Your task to perform on an android device: Open calendar and show me the third week of next month Image 0: 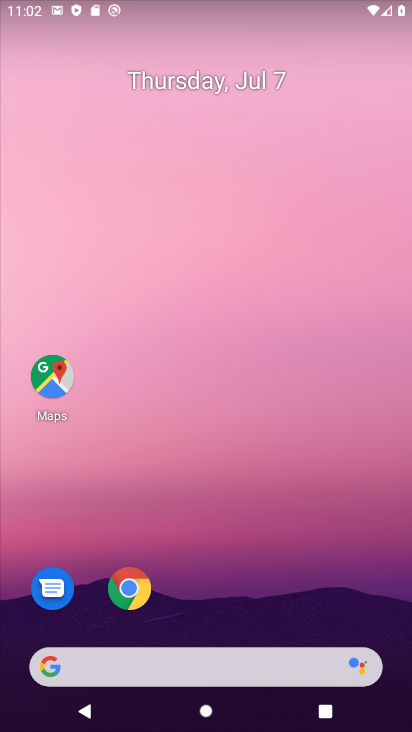
Step 0: drag from (225, 615) to (172, 57)
Your task to perform on an android device: Open calendar and show me the third week of next month Image 1: 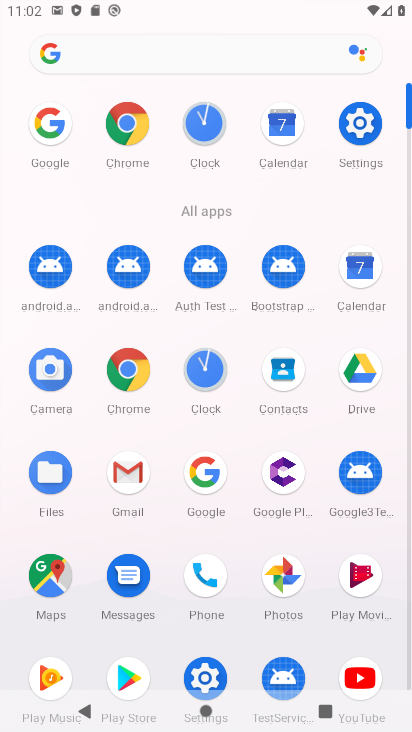
Step 1: click (277, 130)
Your task to perform on an android device: Open calendar and show me the third week of next month Image 2: 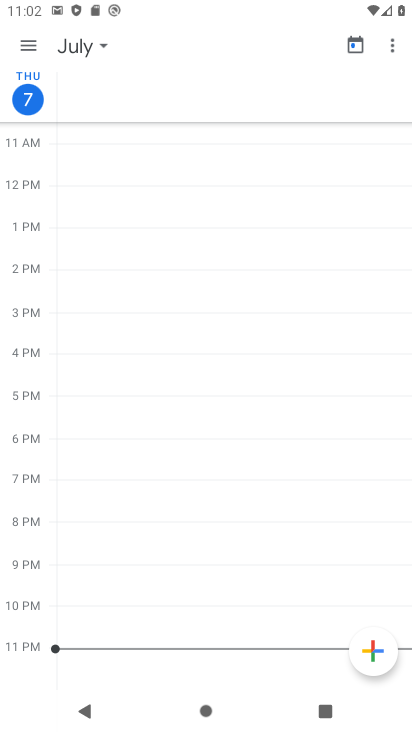
Step 2: press home button
Your task to perform on an android device: Open calendar and show me the third week of next month Image 3: 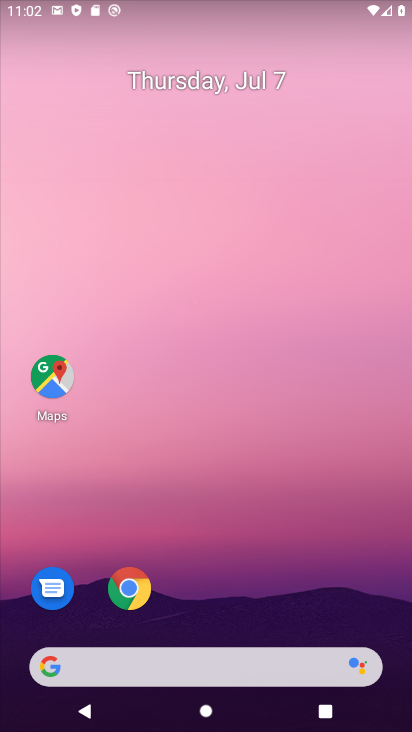
Step 3: drag from (201, 638) to (207, 22)
Your task to perform on an android device: Open calendar and show me the third week of next month Image 4: 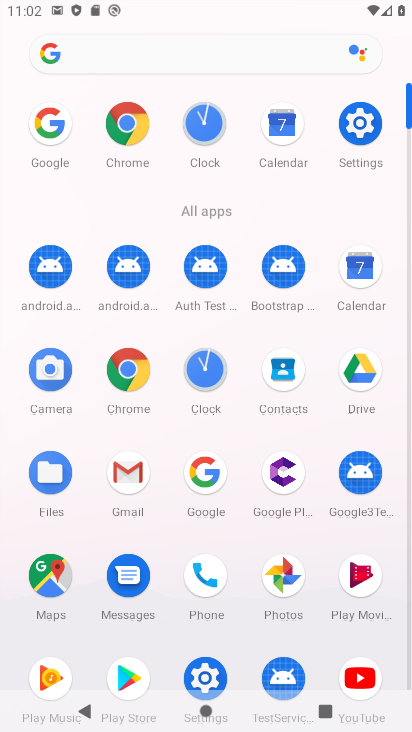
Step 4: click (379, 271)
Your task to perform on an android device: Open calendar and show me the third week of next month Image 5: 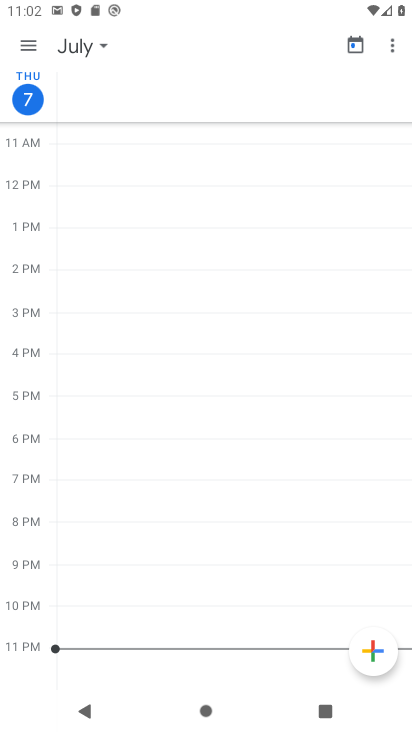
Step 5: click (28, 47)
Your task to perform on an android device: Open calendar and show me the third week of next month Image 6: 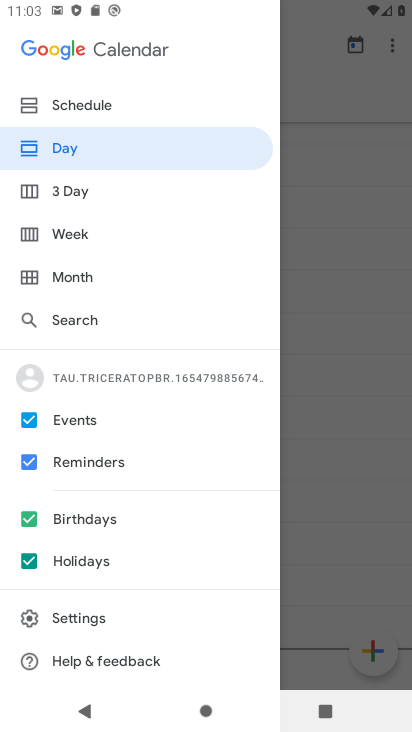
Step 6: click (61, 238)
Your task to perform on an android device: Open calendar and show me the third week of next month Image 7: 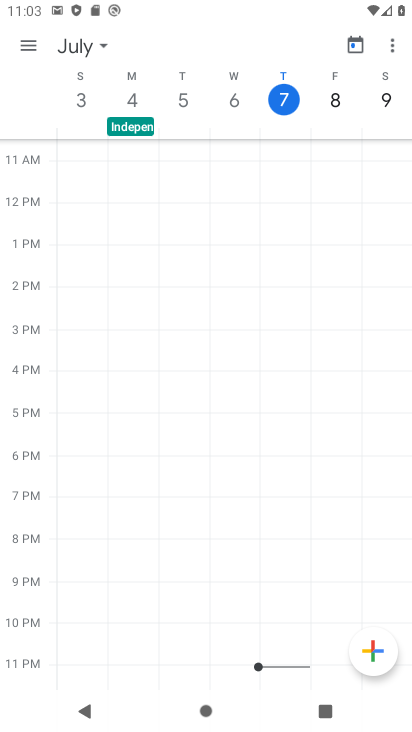
Step 7: task complete